Your task to perform on an android device: Show me popular games on the Play Store Image 0: 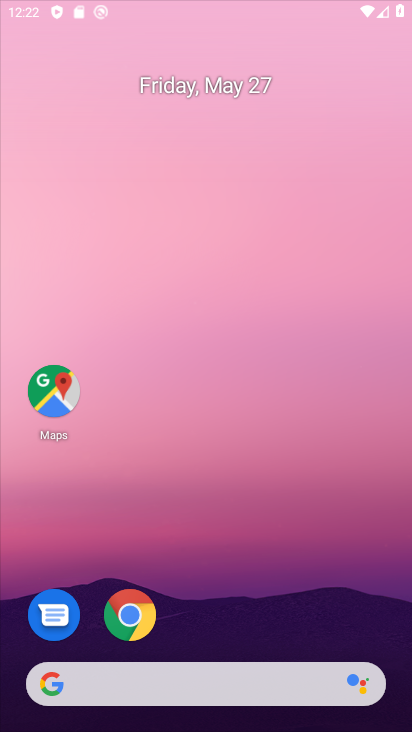
Step 0: press home button
Your task to perform on an android device: Show me popular games on the Play Store Image 1: 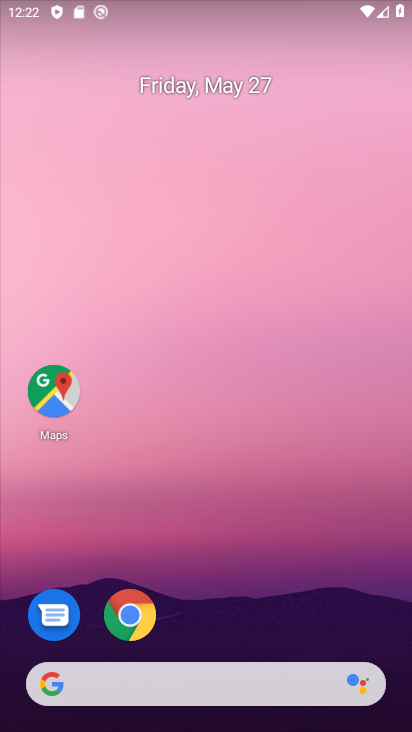
Step 1: drag from (245, 618) to (234, 145)
Your task to perform on an android device: Show me popular games on the Play Store Image 2: 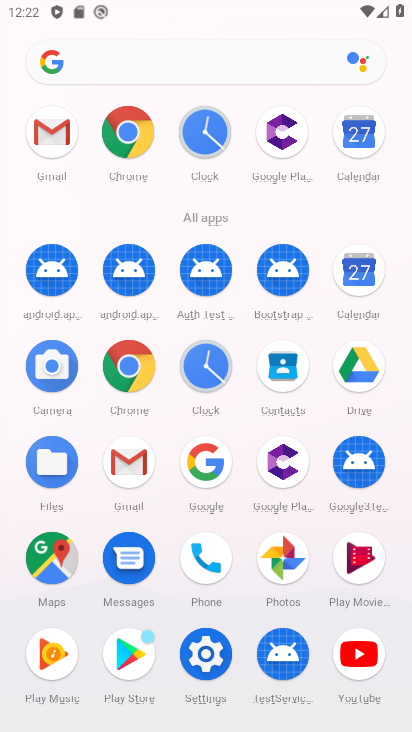
Step 2: click (121, 645)
Your task to perform on an android device: Show me popular games on the Play Store Image 3: 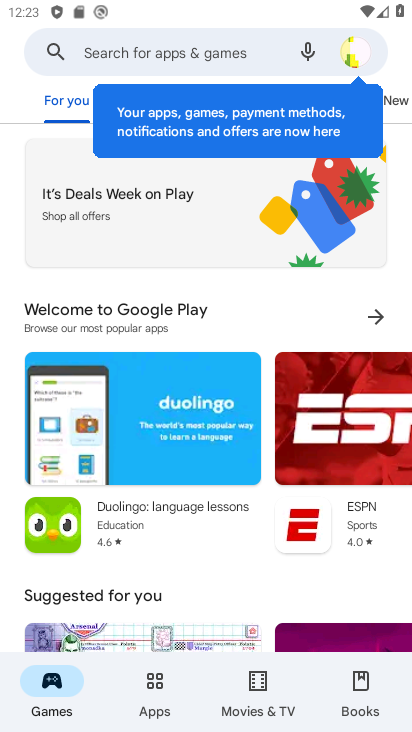
Step 3: click (54, 685)
Your task to perform on an android device: Show me popular games on the Play Store Image 4: 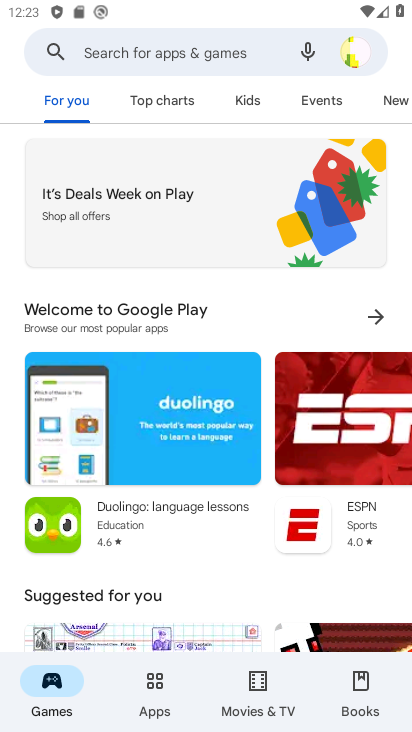
Step 4: drag from (375, 100) to (39, 94)
Your task to perform on an android device: Show me popular games on the Play Store Image 5: 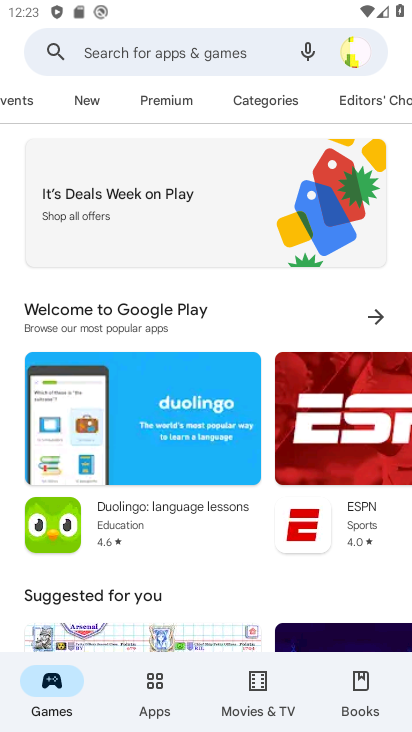
Step 5: click (268, 104)
Your task to perform on an android device: Show me popular games on the Play Store Image 6: 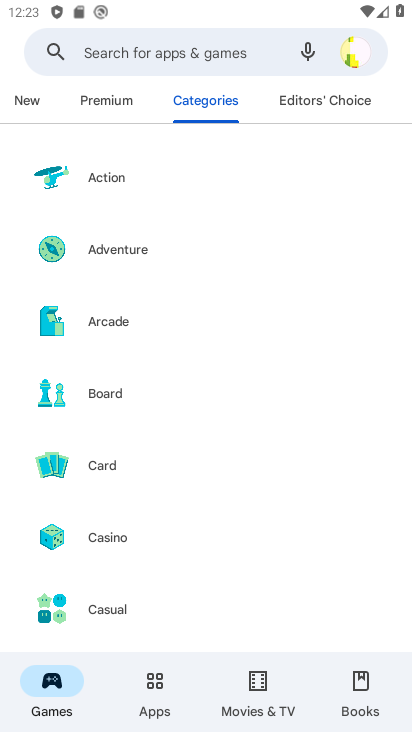
Step 6: task complete